Your task to perform on an android device: check google app version Image 0: 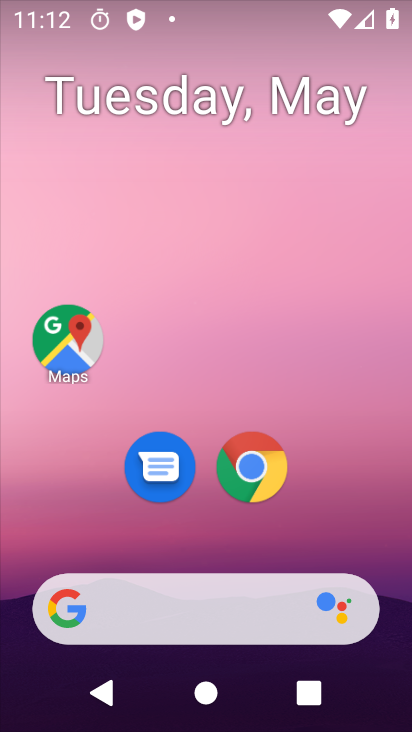
Step 0: drag from (331, 514) to (233, 45)
Your task to perform on an android device: check google app version Image 1: 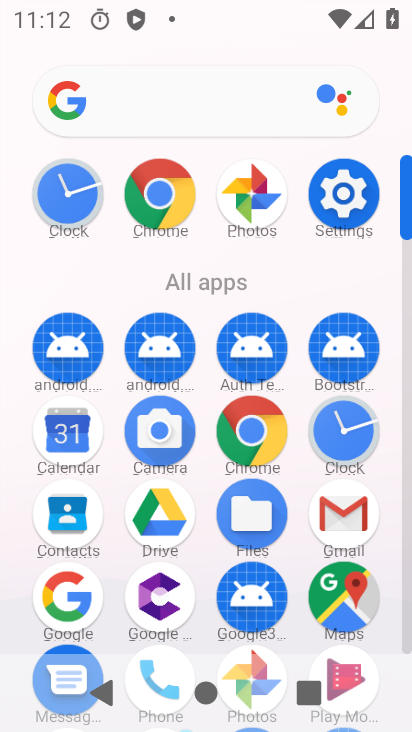
Step 1: drag from (6, 575) to (0, 257)
Your task to perform on an android device: check google app version Image 2: 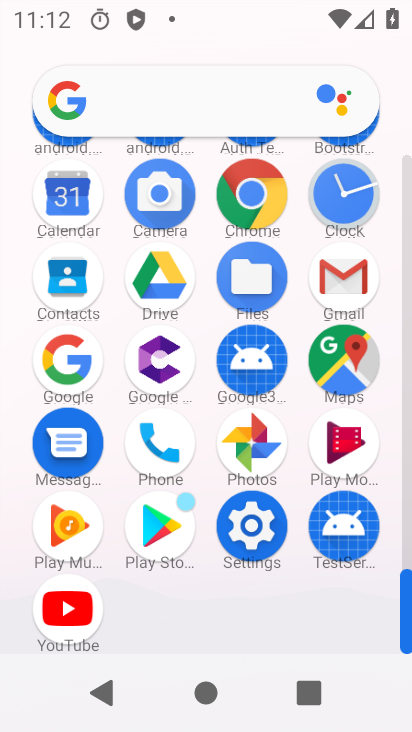
Step 2: click (68, 358)
Your task to perform on an android device: check google app version Image 3: 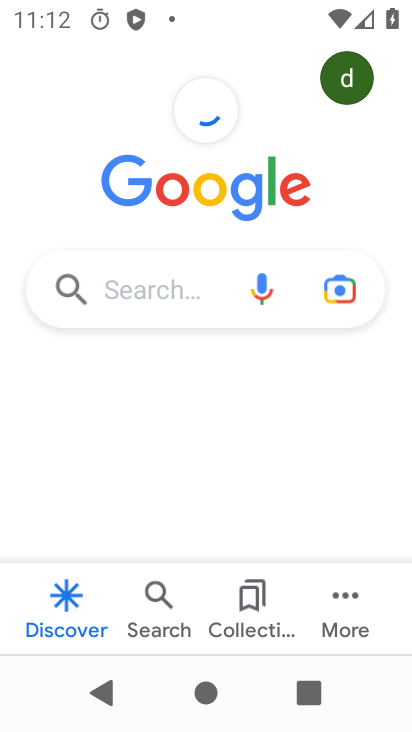
Step 3: click (343, 596)
Your task to perform on an android device: check google app version Image 4: 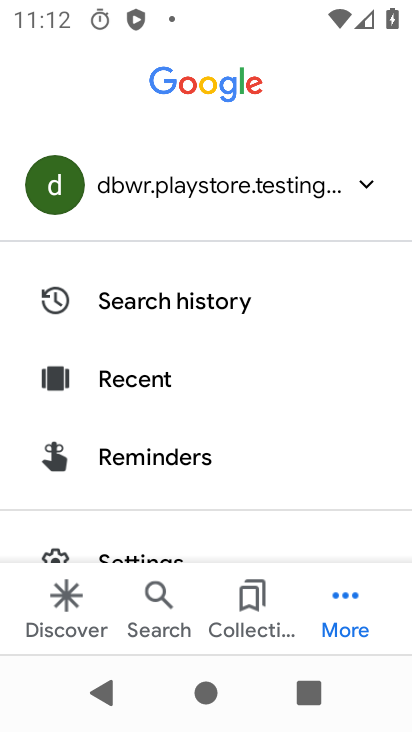
Step 4: drag from (234, 501) to (224, 236)
Your task to perform on an android device: check google app version Image 5: 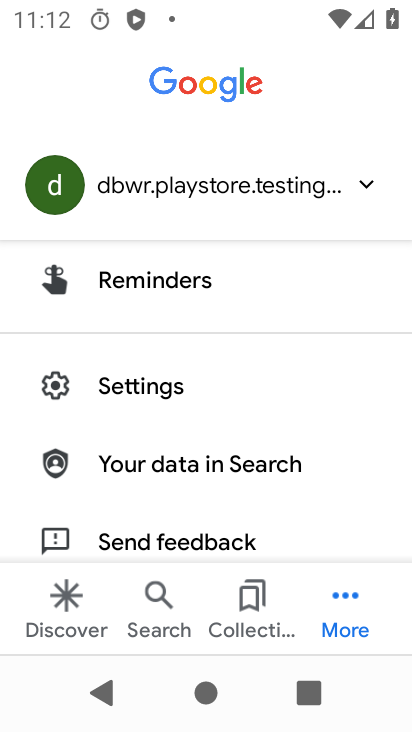
Step 5: click (156, 380)
Your task to perform on an android device: check google app version Image 6: 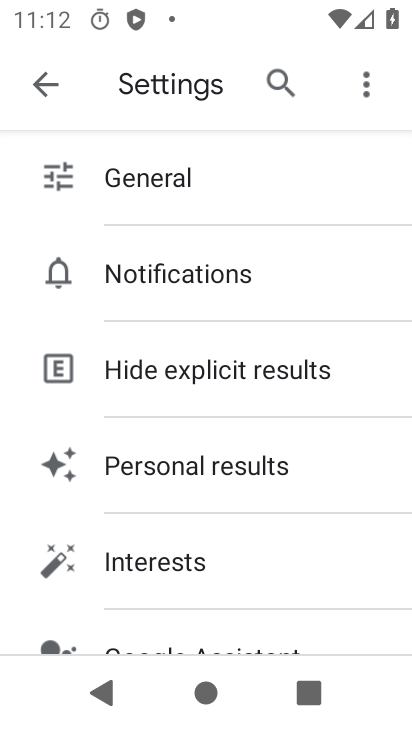
Step 6: drag from (203, 538) to (210, 65)
Your task to perform on an android device: check google app version Image 7: 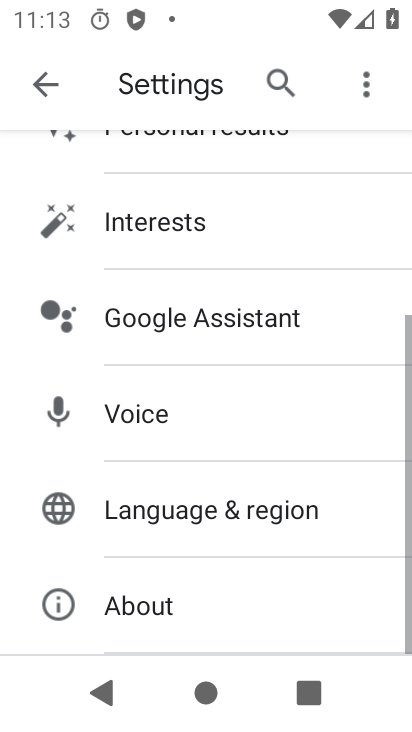
Step 7: click (154, 604)
Your task to perform on an android device: check google app version Image 8: 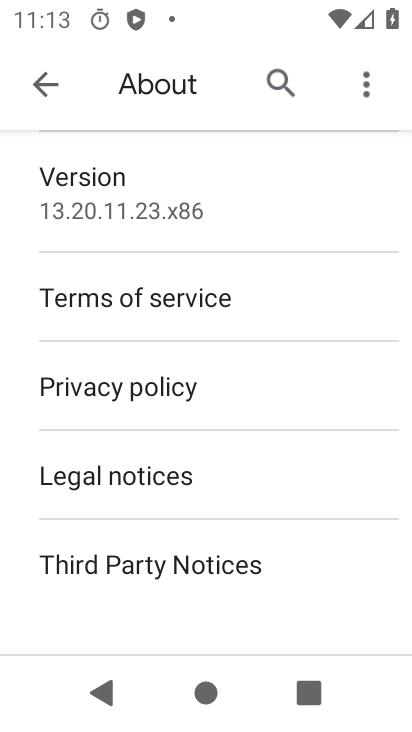
Step 8: task complete